Your task to perform on an android device: Open internet settings Image 0: 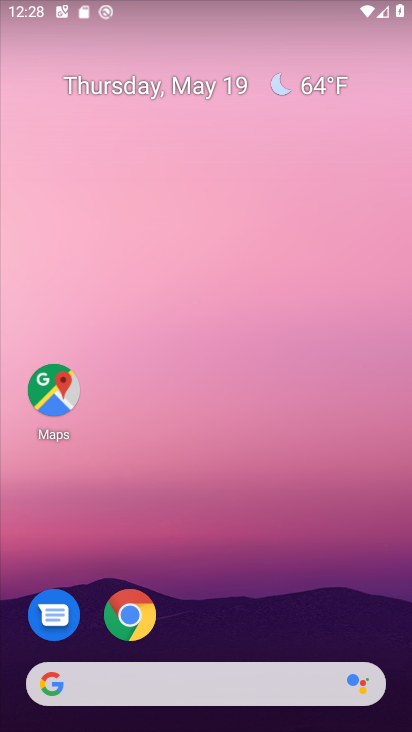
Step 0: drag from (273, 689) to (289, 105)
Your task to perform on an android device: Open internet settings Image 1: 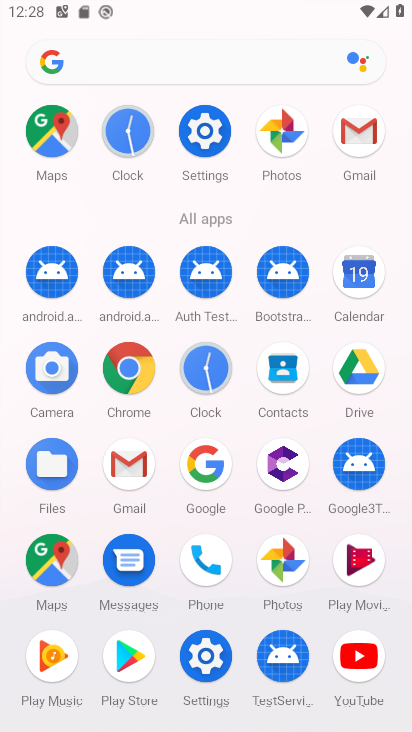
Step 1: click (189, 132)
Your task to perform on an android device: Open internet settings Image 2: 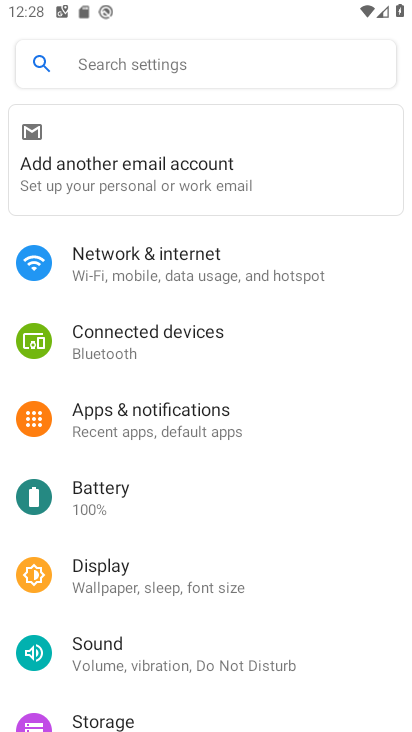
Step 2: click (213, 252)
Your task to perform on an android device: Open internet settings Image 3: 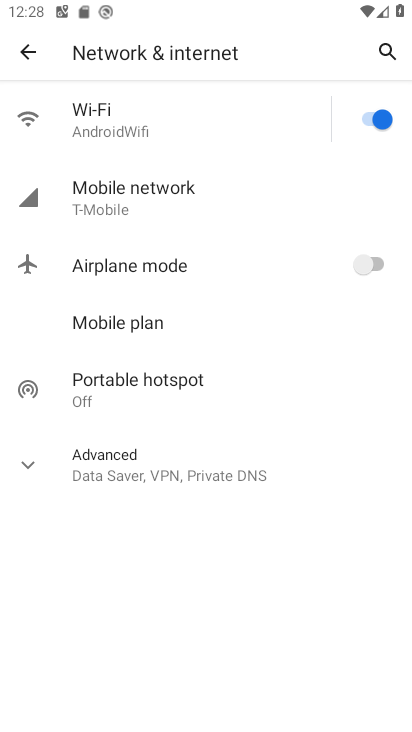
Step 3: task complete